Your task to perform on an android device: Go to Wikipedia Image 0: 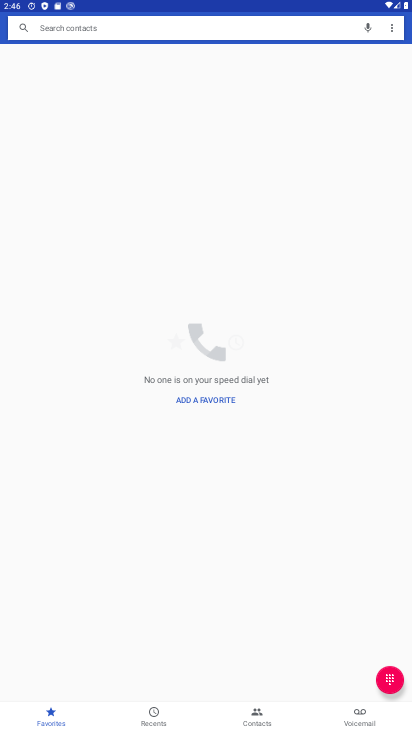
Step 0: press home button
Your task to perform on an android device: Go to Wikipedia Image 1: 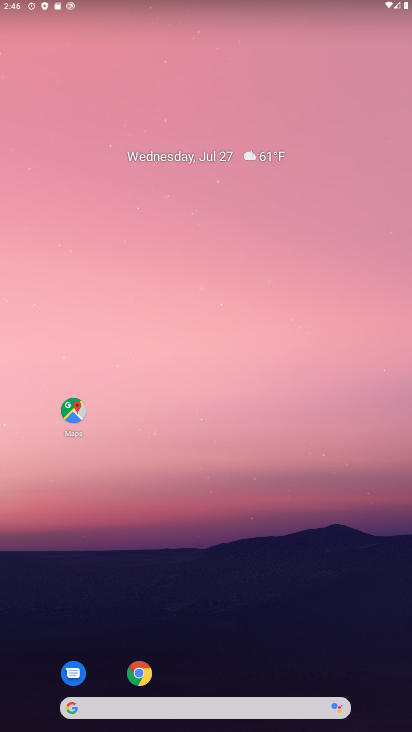
Step 1: click (86, 716)
Your task to perform on an android device: Go to Wikipedia Image 2: 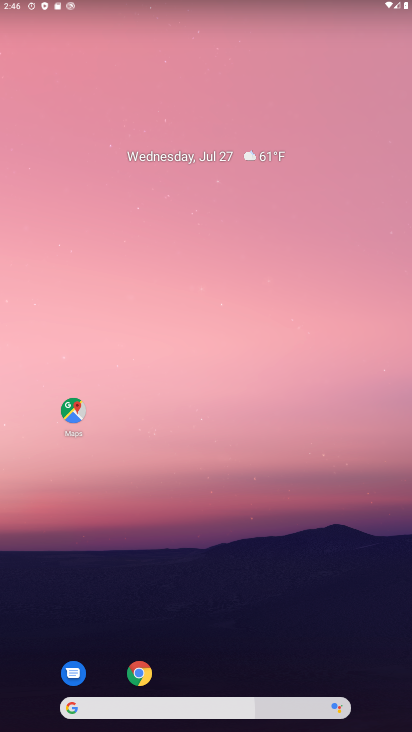
Step 2: click (90, 712)
Your task to perform on an android device: Go to Wikipedia Image 3: 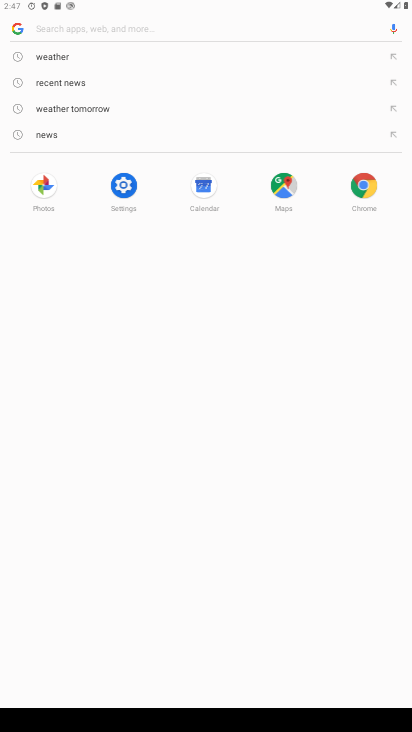
Step 3: type "Wikipedia"
Your task to perform on an android device: Go to Wikipedia Image 4: 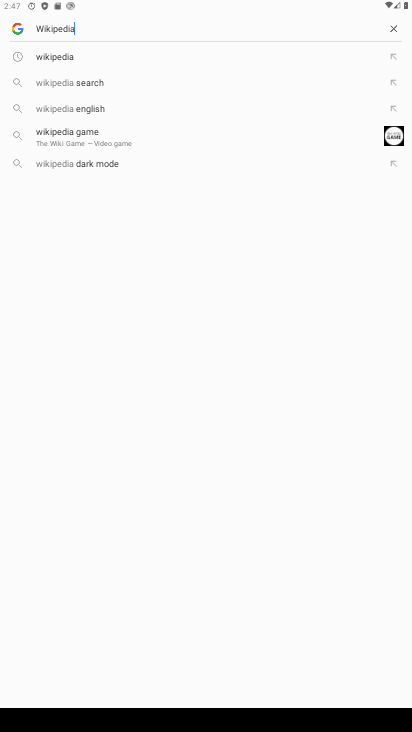
Step 4: click (40, 60)
Your task to perform on an android device: Go to Wikipedia Image 5: 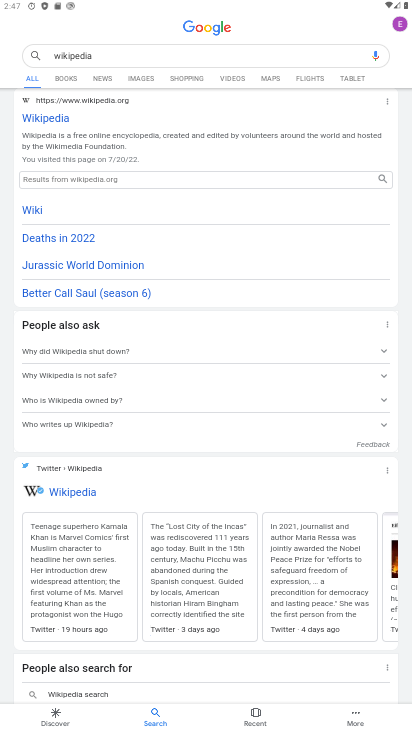
Step 5: task complete